Your task to perform on an android device: empty trash in the gmail app Image 0: 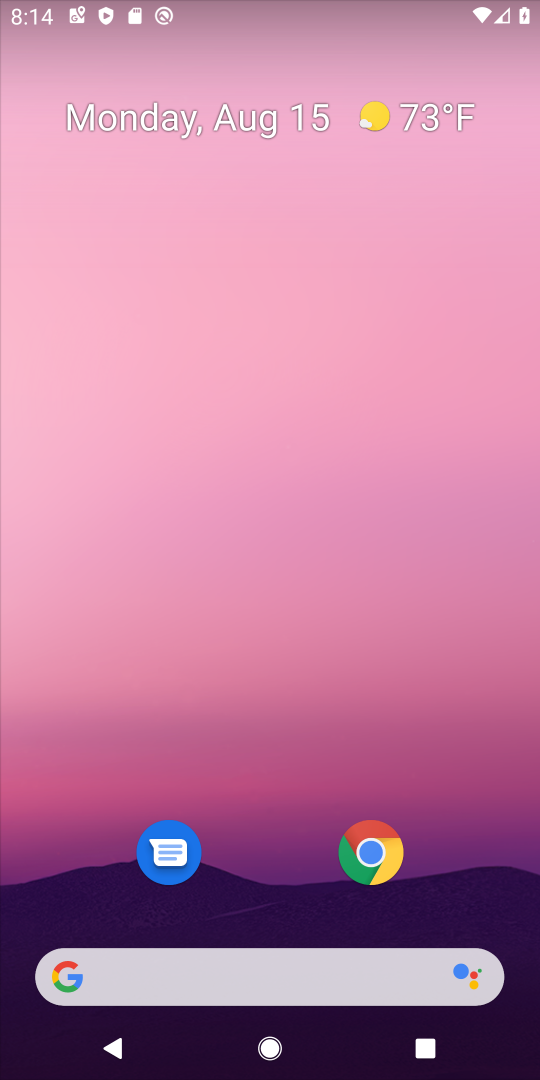
Step 0: drag from (244, 956) to (352, 206)
Your task to perform on an android device: empty trash in the gmail app Image 1: 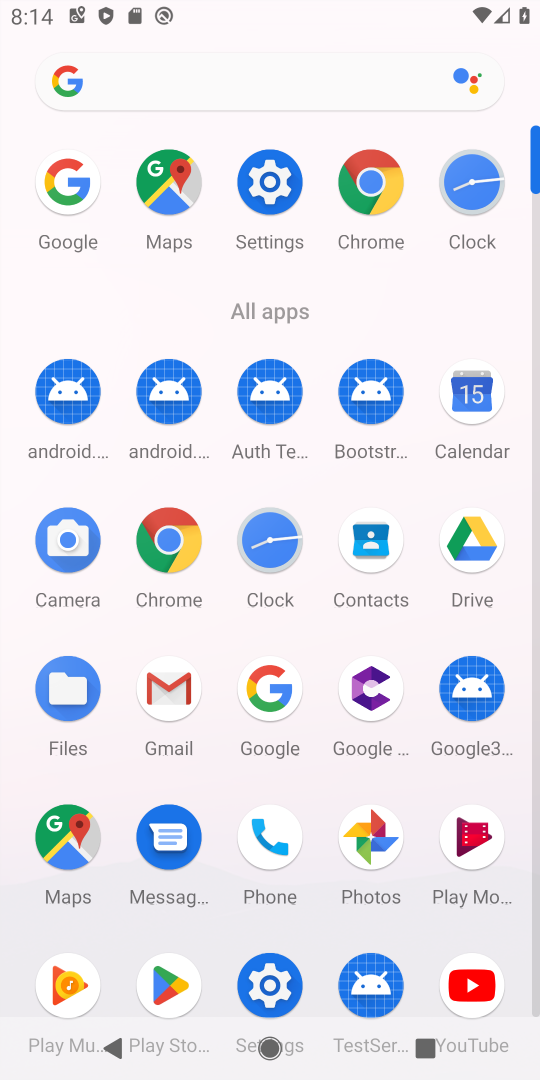
Step 1: click (170, 683)
Your task to perform on an android device: empty trash in the gmail app Image 2: 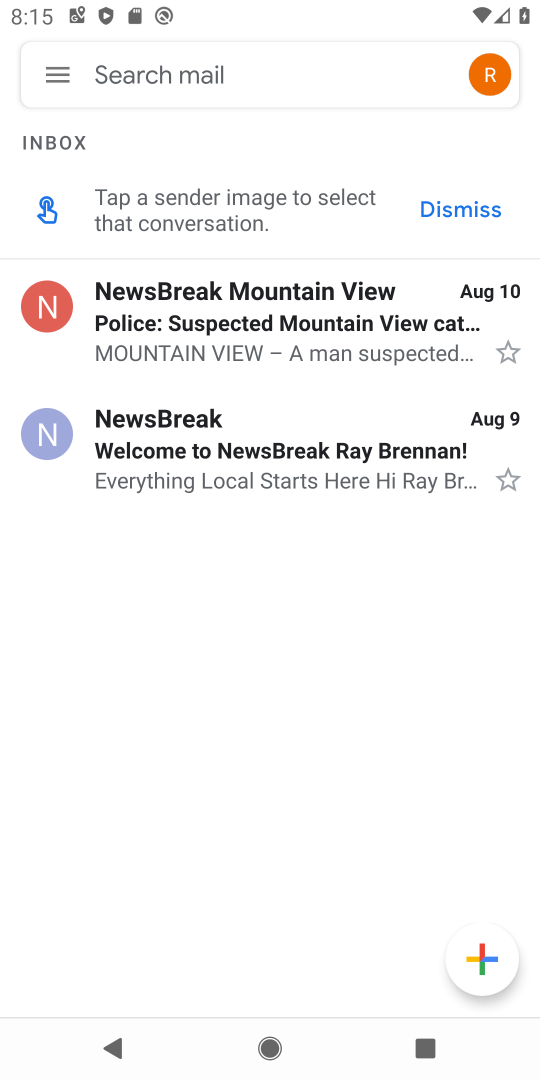
Step 2: click (54, 75)
Your task to perform on an android device: empty trash in the gmail app Image 3: 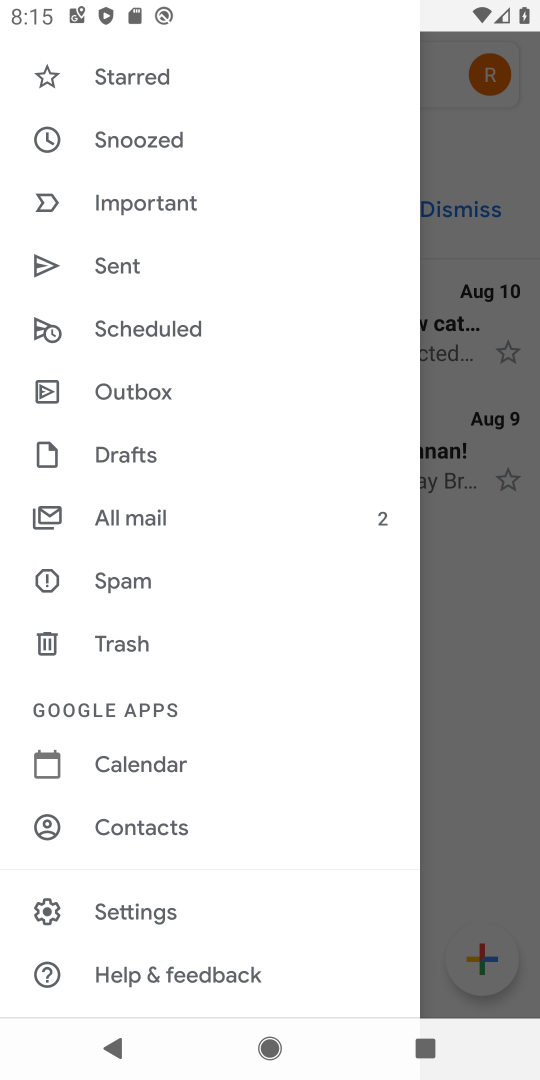
Step 3: click (140, 645)
Your task to perform on an android device: empty trash in the gmail app Image 4: 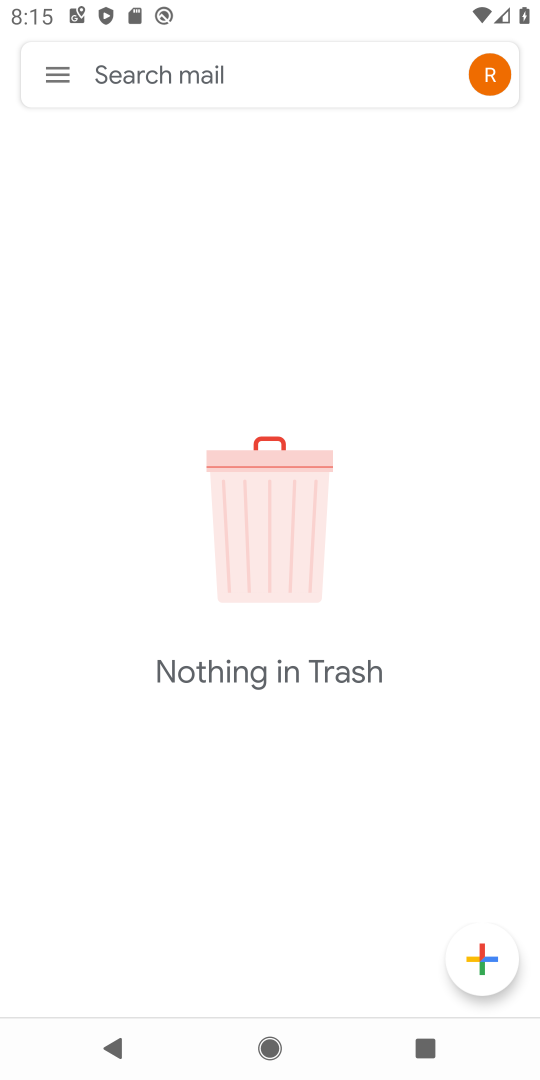
Step 4: task complete